Your task to perform on an android device: open app "Speedtest by Ookla" (install if not already installed) Image 0: 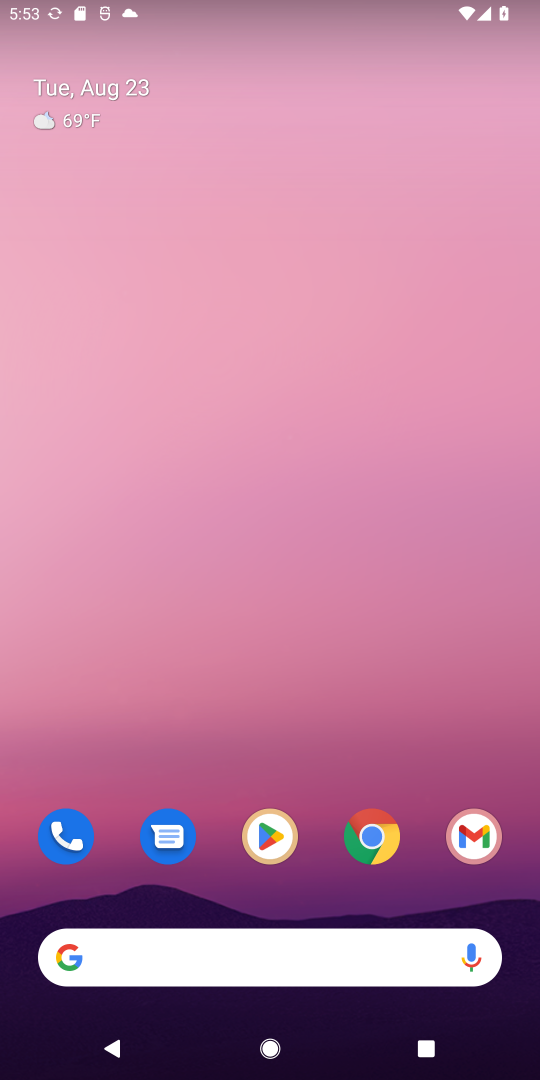
Step 0: click (273, 836)
Your task to perform on an android device: open app "Speedtest by Ookla" (install if not already installed) Image 1: 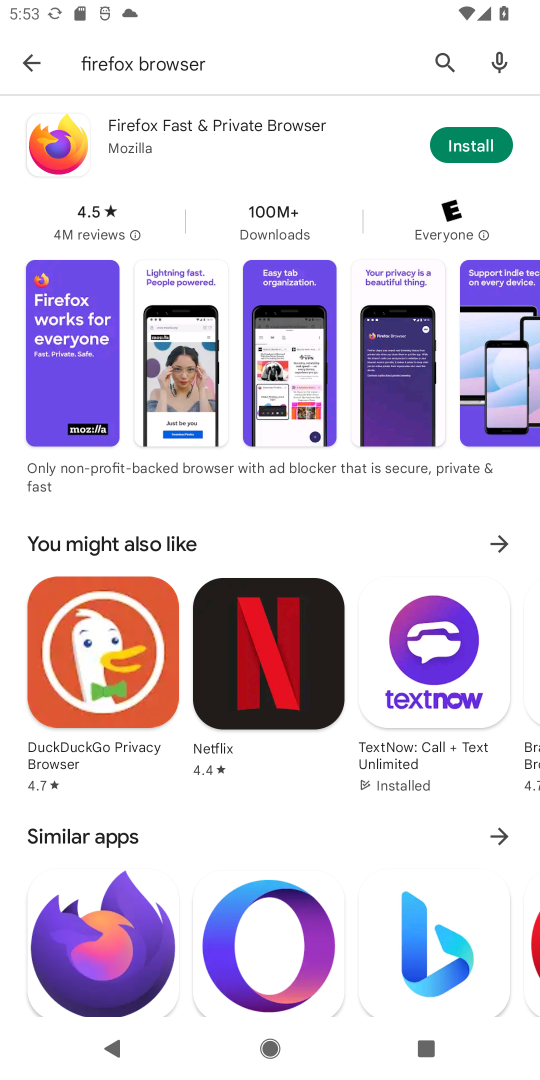
Step 1: click (446, 56)
Your task to perform on an android device: open app "Speedtest by Ookla" (install if not already installed) Image 2: 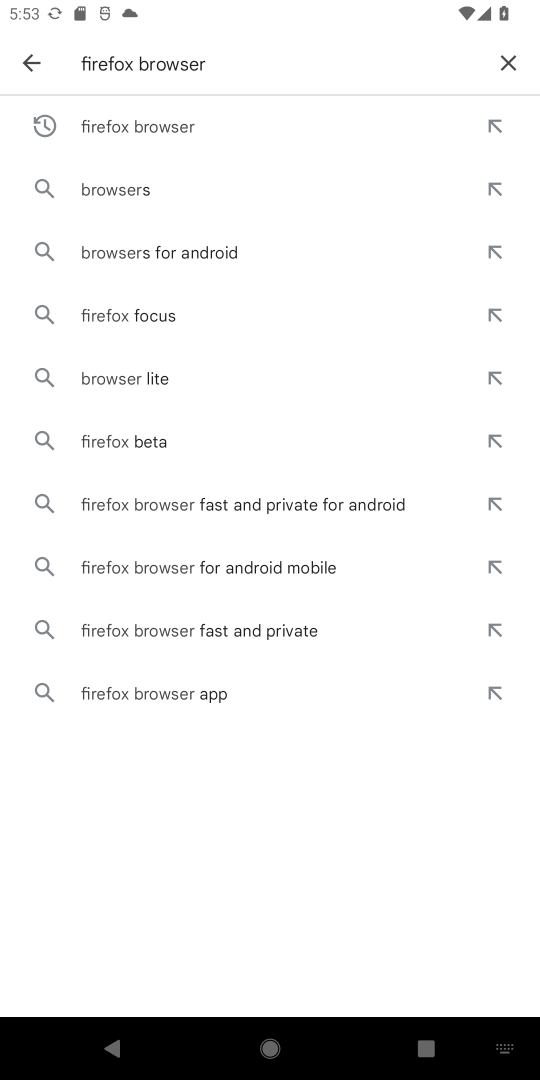
Step 2: click (507, 62)
Your task to perform on an android device: open app "Speedtest by Ookla" (install if not already installed) Image 3: 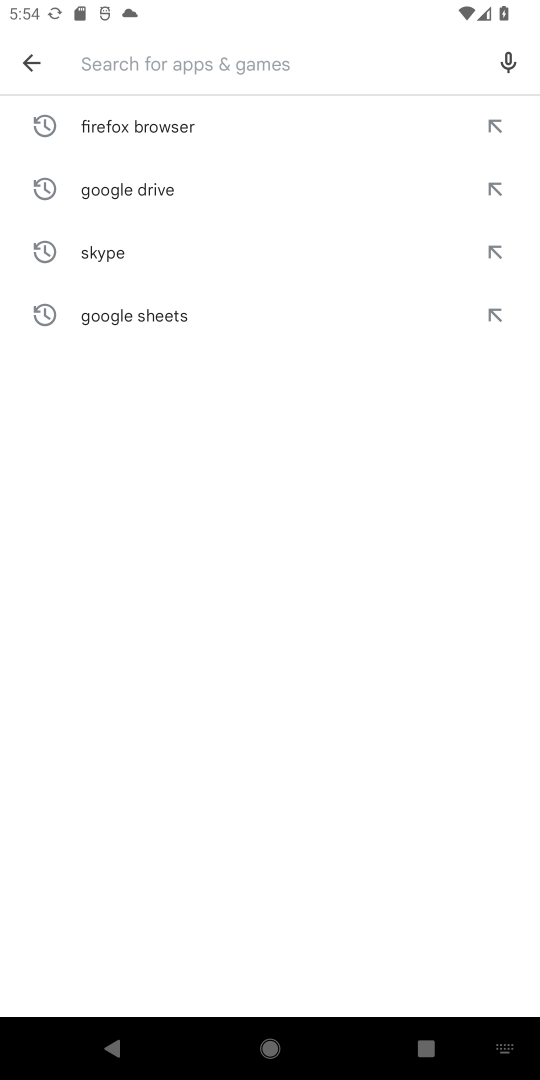
Step 3: type "Speedtest by Ookla"
Your task to perform on an android device: open app "Speedtest by Ookla" (install if not already installed) Image 4: 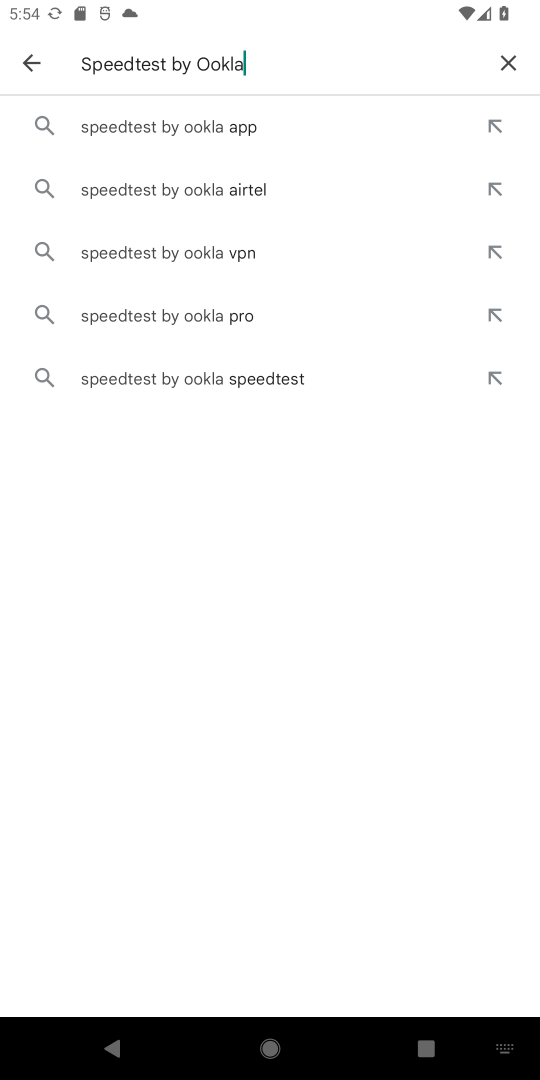
Step 4: click (190, 124)
Your task to perform on an android device: open app "Speedtest by Ookla" (install if not already installed) Image 5: 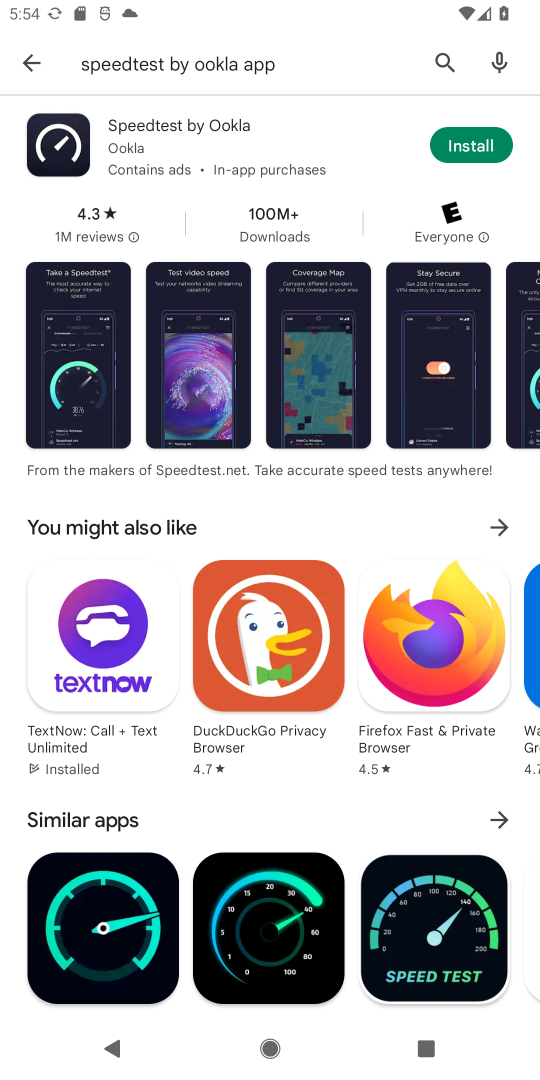
Step 5: click (474, 144)
Your task to perform on an android device: open app "Speedtest by Ookla" (install if not already installed) Image 6: 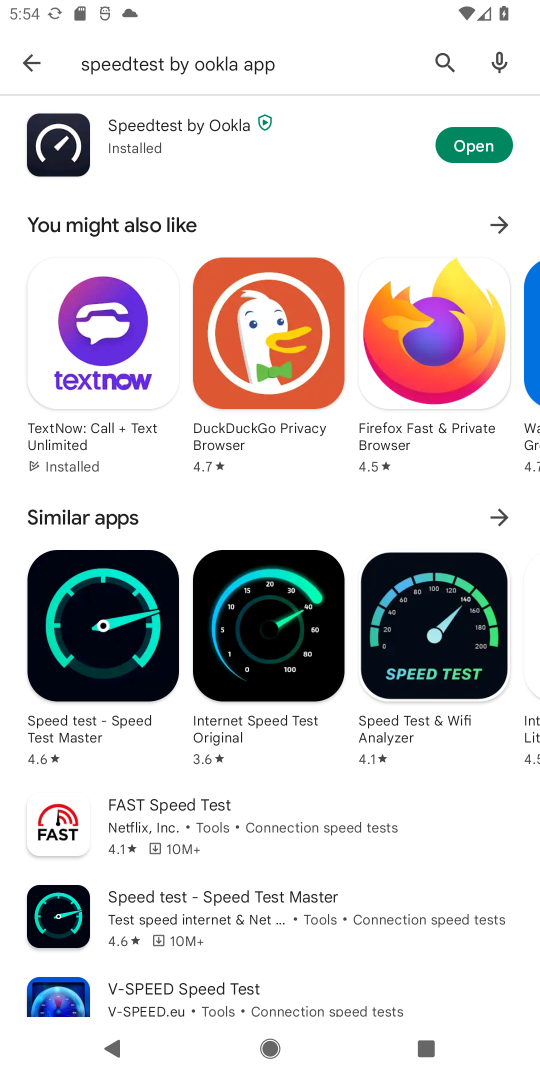
Step 6: click (471, 141)
Your task to perform on an android device: open app "Speedtest by Ookla" (install if not already installed) Image 7: 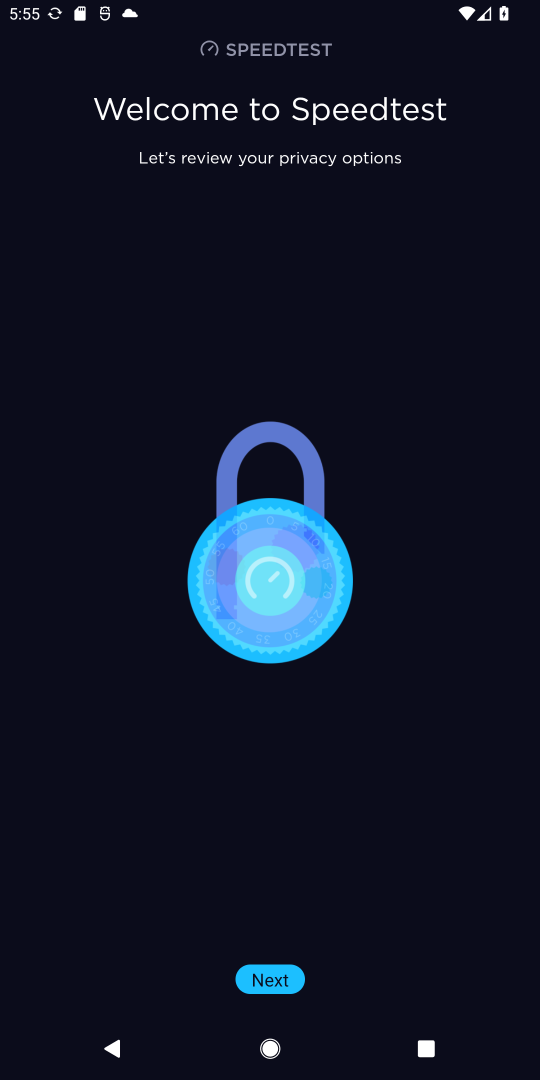
Step 7: task complete